Your task to perform on an android device: Search for Italian restaurants on Maps Image 0: 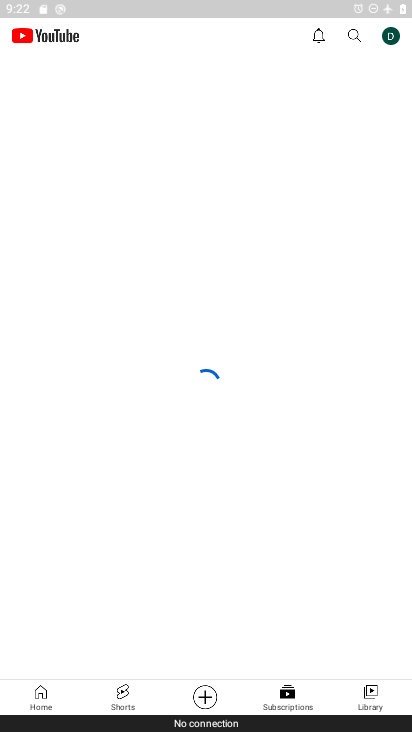
Step 0: press home button
Your task to perform on an android device: Search for Italian restaurants on Maps Image 1: 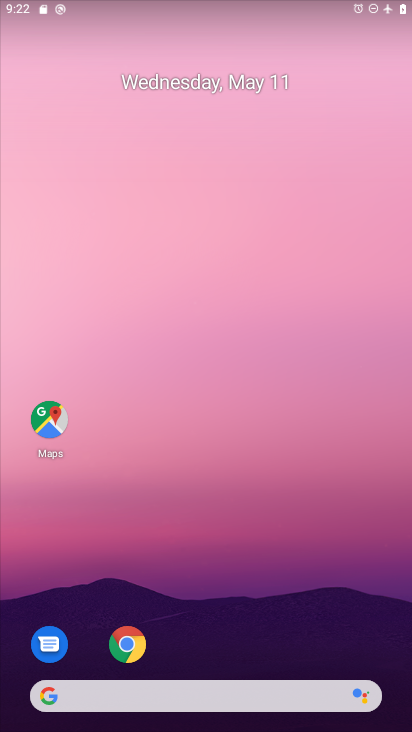
Step 1: click (42, 416)
Your task to perform on an android device: Search for Italian restaurants on Maps Image 2: 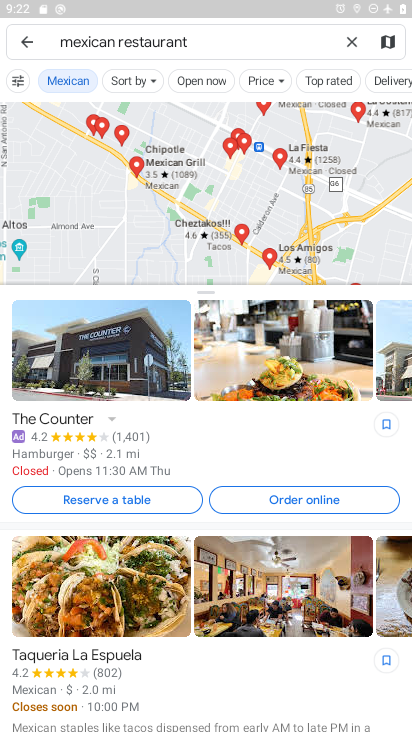
Step 2: click (25, 39)
Your task to perform on an android device: Search for Italian restaurants on Maps Image 3: 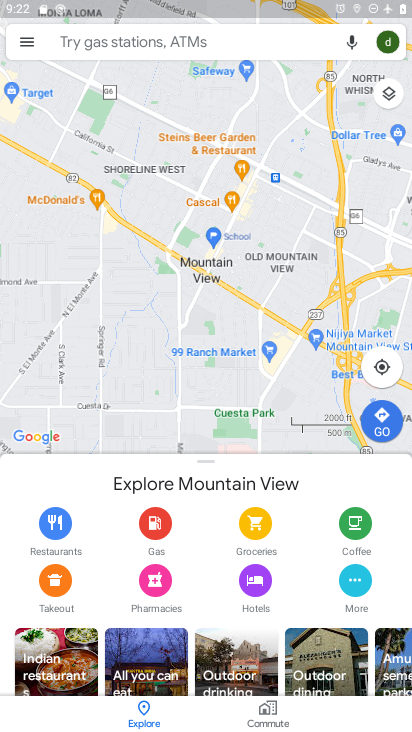
Step 3: click (155, 38)
Your task to perform on an android device: Search for Italian restaurants on Maps Image 4: 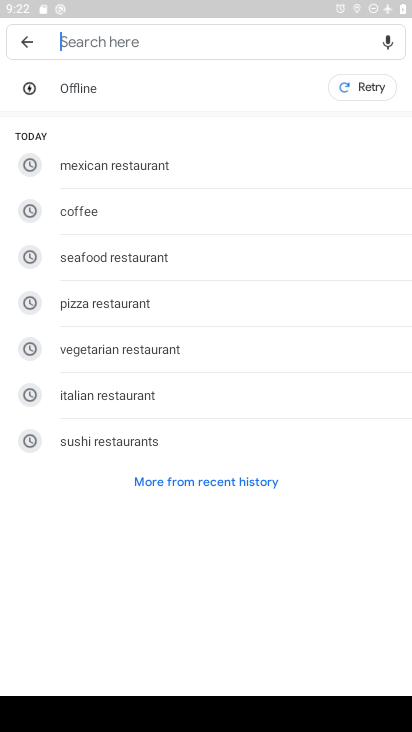
Step 4: click (126, 392)
Your task to perform on an android device: Search for Italian restaurants on Maps Image 5: 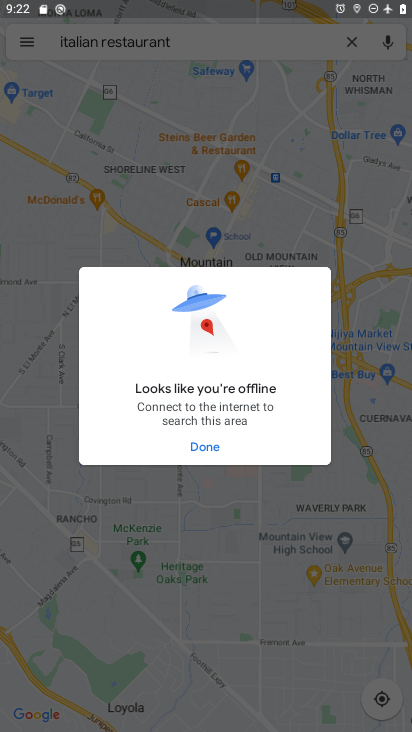
Step 5: task complete